Your task to perform on an android device: empty trash in google photos Image 0: 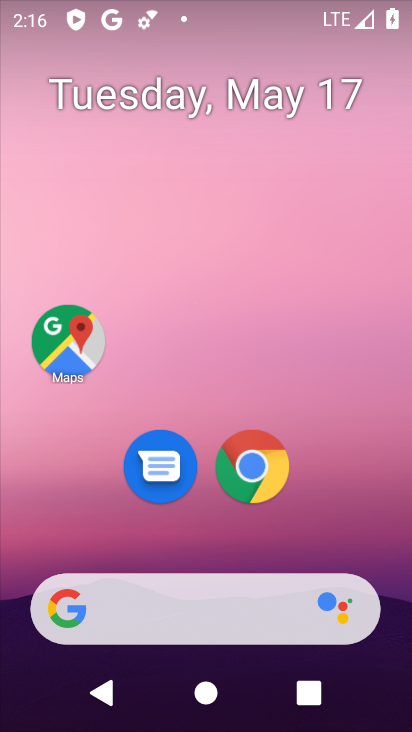
Step 0: drag from (345, 492) to (325, 71)
Your task to perform on an android device: empty trash in google photos Image 1: 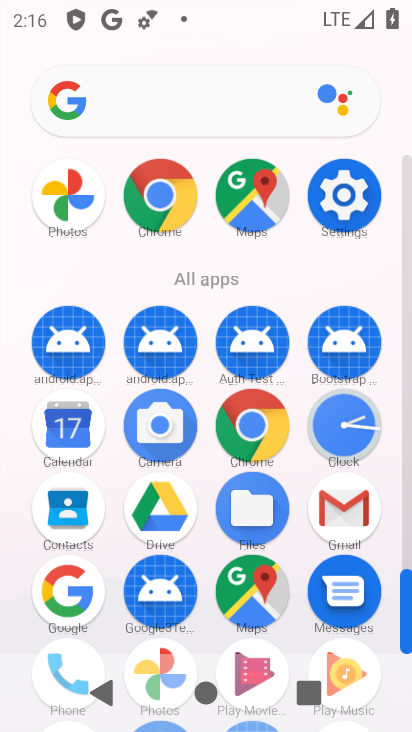
Step 1: click (50, 196)
Your task to perform on an android device: empty trash in google photos Image 2: 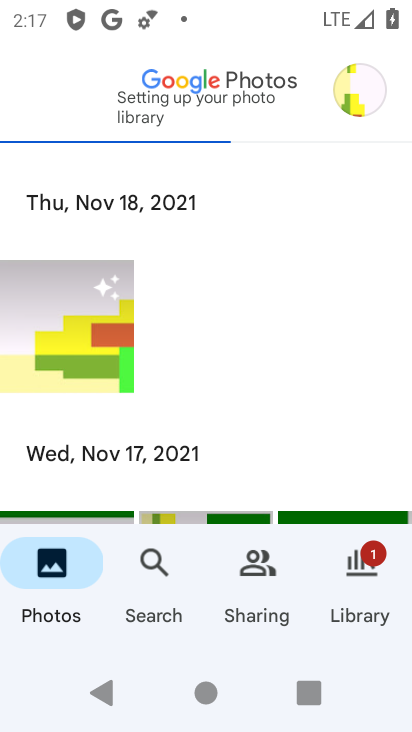
Step 2: click (361, 79)
Your task to perform on an android device: empty trash in google photos Image 3: 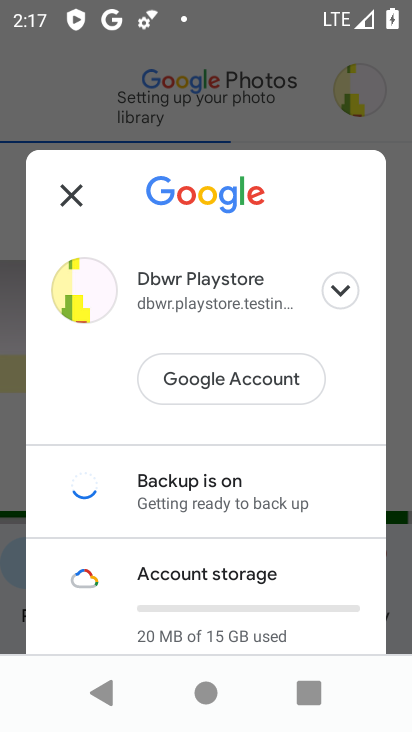
Step 3: drag from (179, 529) to (241, 92)
Your task to perform on an android device: empty trash in google photos Image 4: 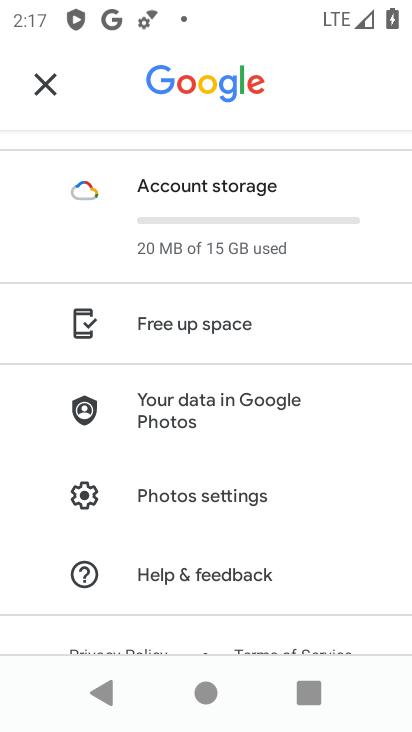
Step 4: drag from (234, 545) to (248, 482)
Your task to perform on an android device: empty trash in google photos Image 5: 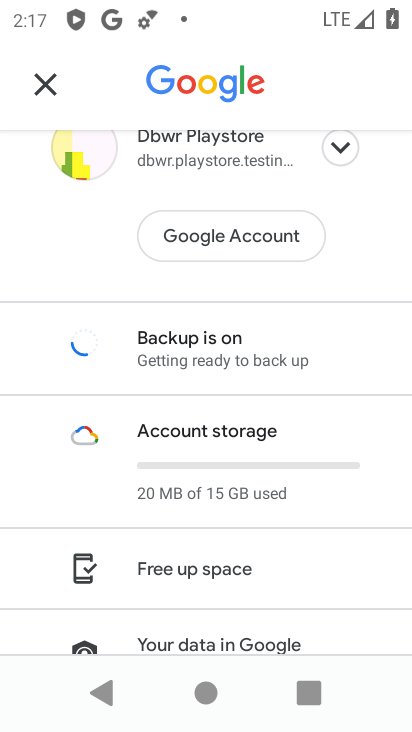
Step 5: click (42, 82)
Your task to perform on an android device: empty trash in google photos Image 6: 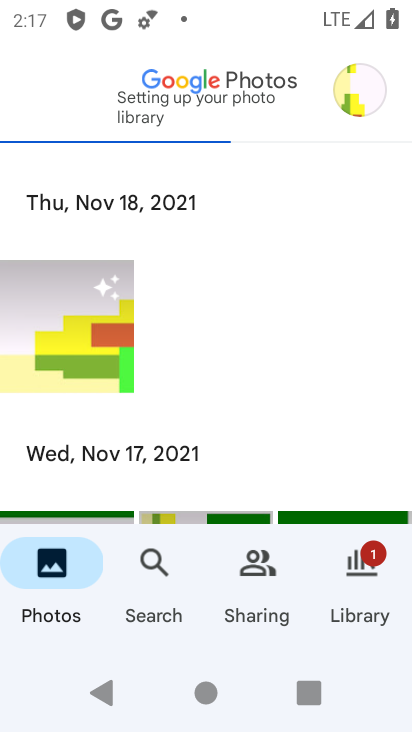
Step 6: click (357, 577)
Your task to perform on an android device: empty trash in google photos Image 7: 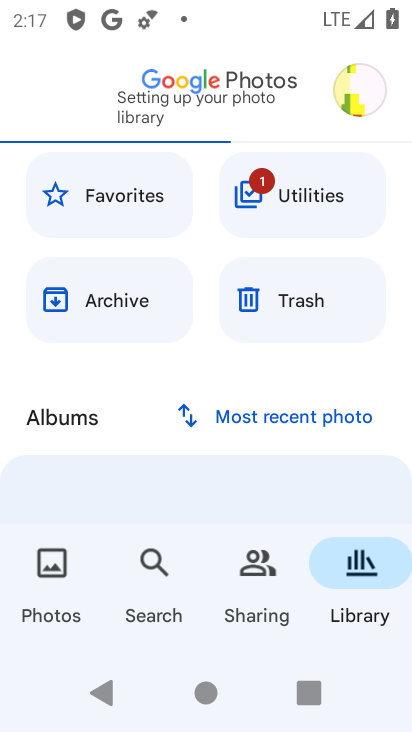
Step 7: click (279, 294)
Your task to perform on an android device: empty trash in google photos Image 8: 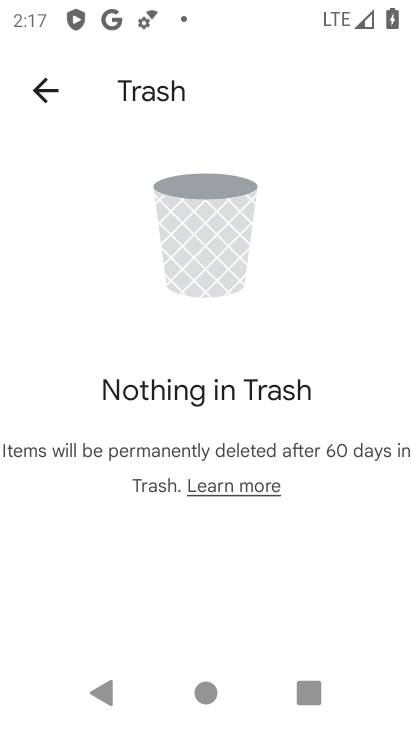
Step 8: task complete